Your task to perform on an android device: empty trash in the gmail app Image 0: 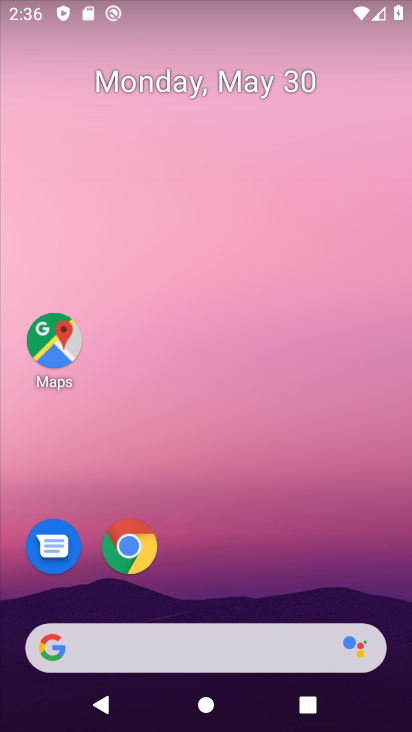
Step 0: drag from (295, 586) to (200, 148)
Your task to perform on an android device: empty trash in the gmail app Image 1: 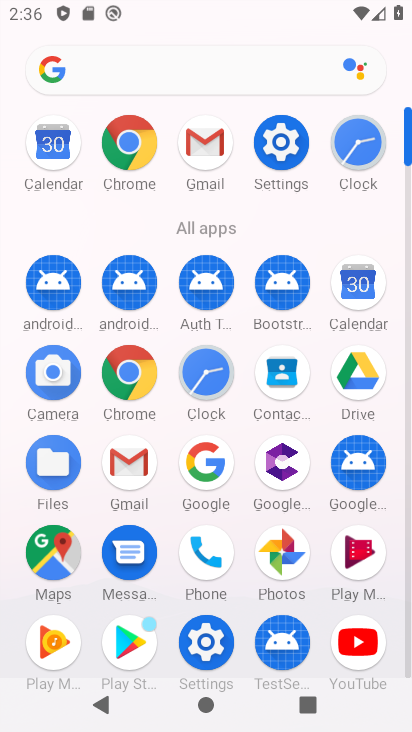
Step 1: click (214, 148)
Your task to perform on an android device: empty trash in the gmail app Image 2: 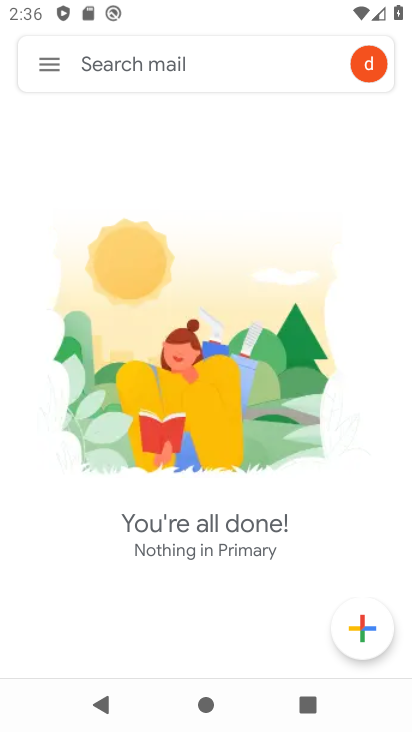
Step 2: click (57, 70)
Your task to perform on an android device: empty trash in the gmail app Image 3: 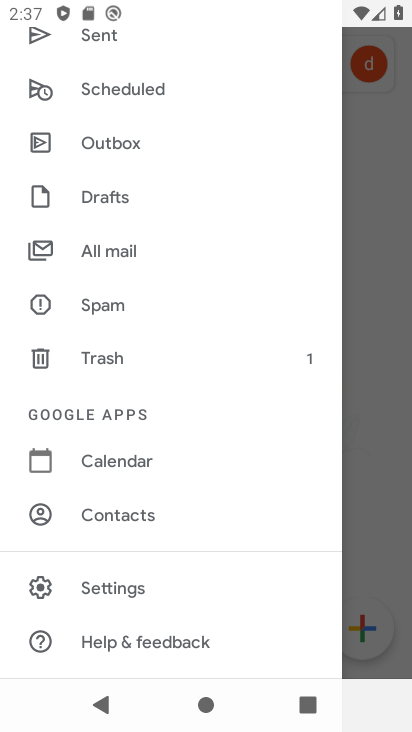
Step 3: click (112, 361)
Your task to perform on an android device: empty trash in the gmail app Image 4: 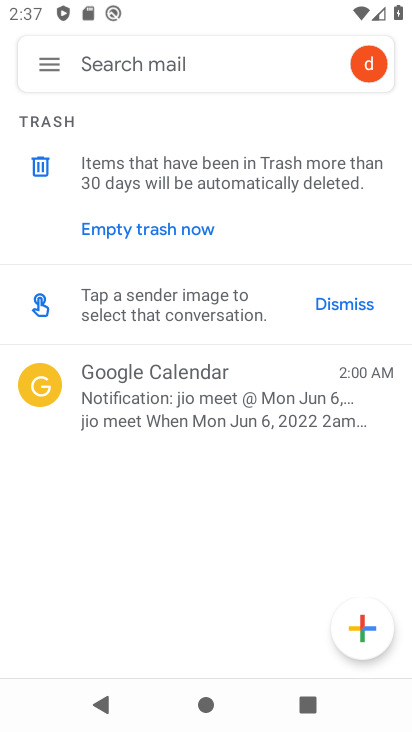
Step 4: click (171, 229)
Your task to perform on an android device: empty trash in the gmail app Image 5: 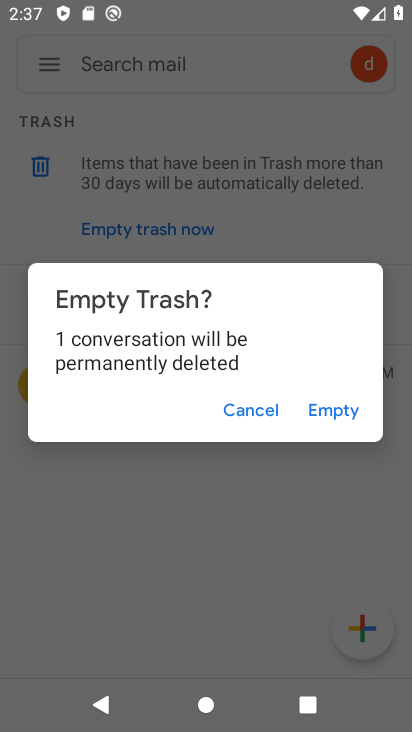
Step 5: click (309, 398)
Your task to perform on an android device: empty trash in the gmail app Image 6: 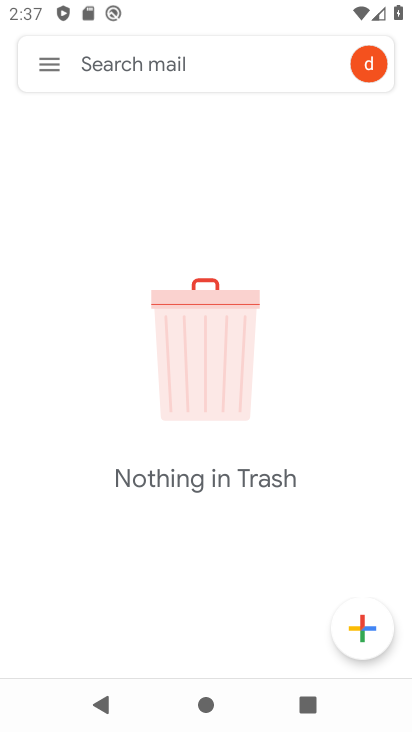
Step 6: task complete